Your task to perform on an android device: turn on priority inbox in the gmail app Image 0: 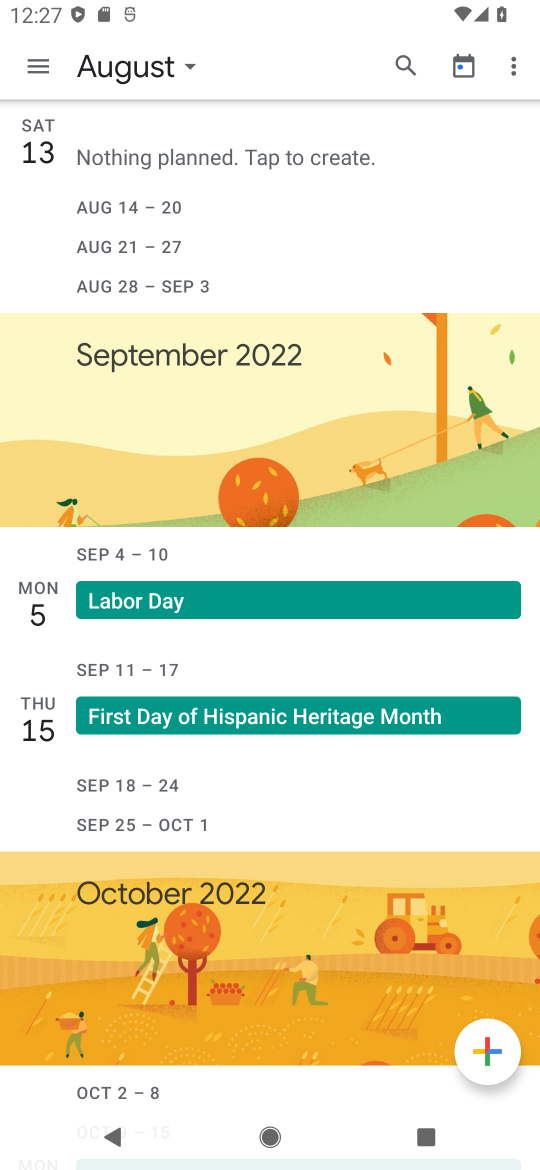
Step 0: press home button
Your task to perform on an android device: turn on priority inbox in the gmail app Image 1: 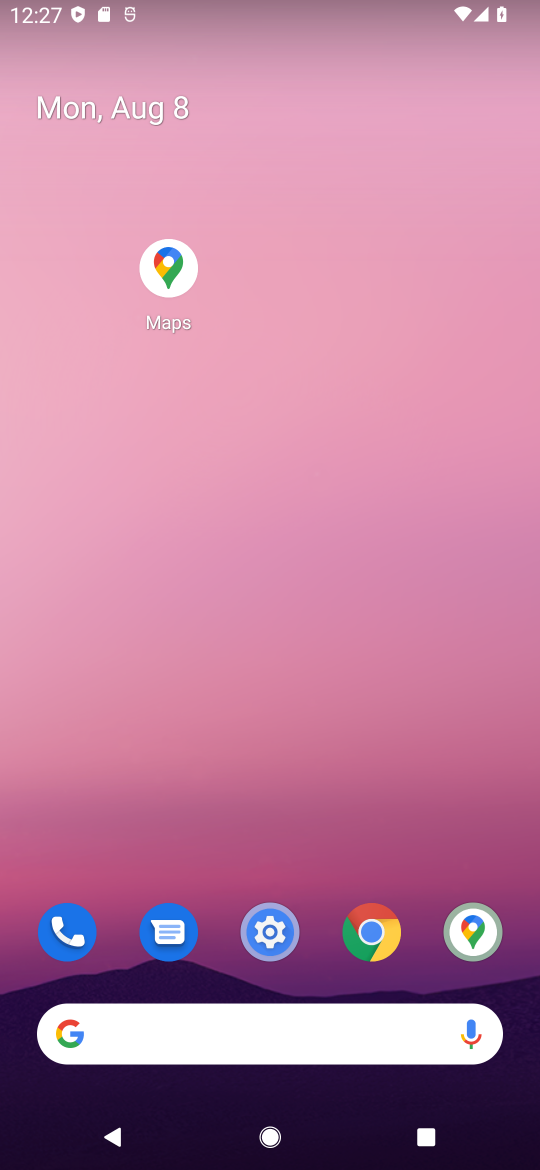
Step 1: drag from (221, 958) to (262, 146)
Your task to perform on an android device: turn on priority inbox in the gmail app Image 2: 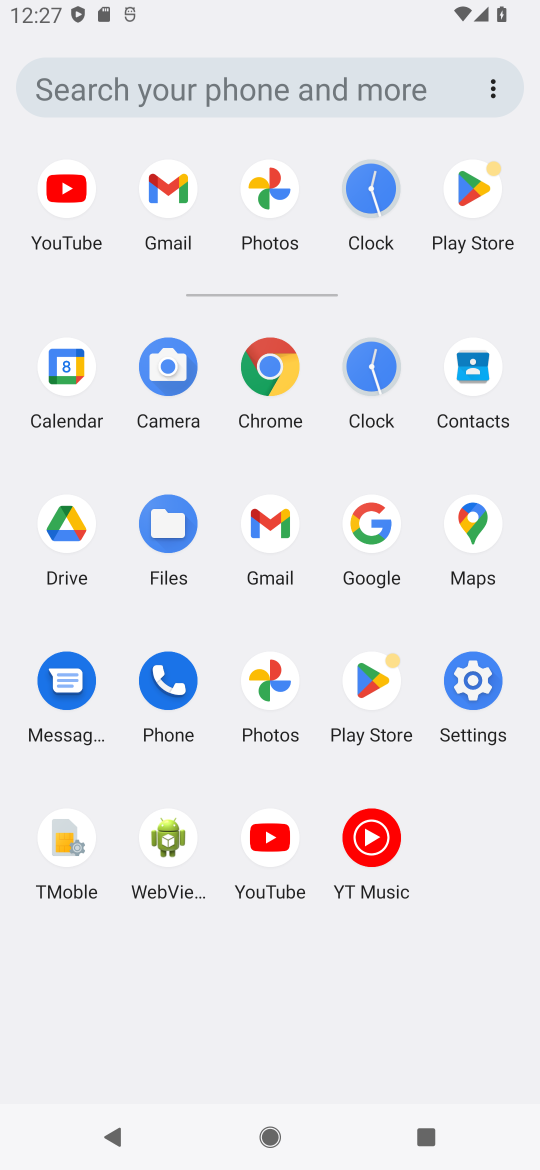
Step 2: click (176, 199)
Your task to perform on an android device: turn on priority inbox in the gmail app Image 3: 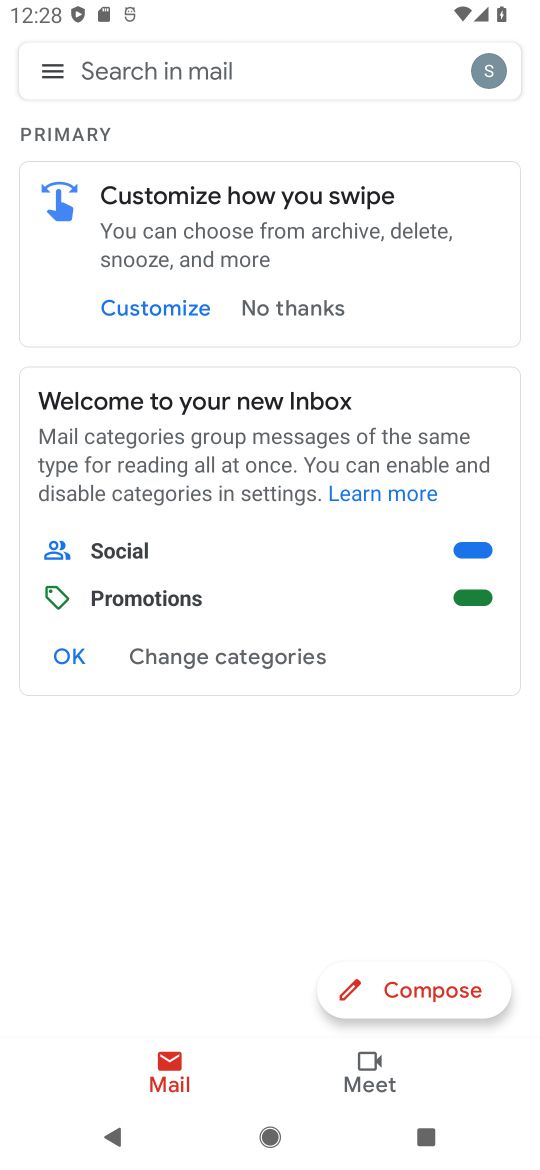
Step 3: click (62, 73)
Your task to perform on an android device: turn on priority inbox in the gmail app Image 4: 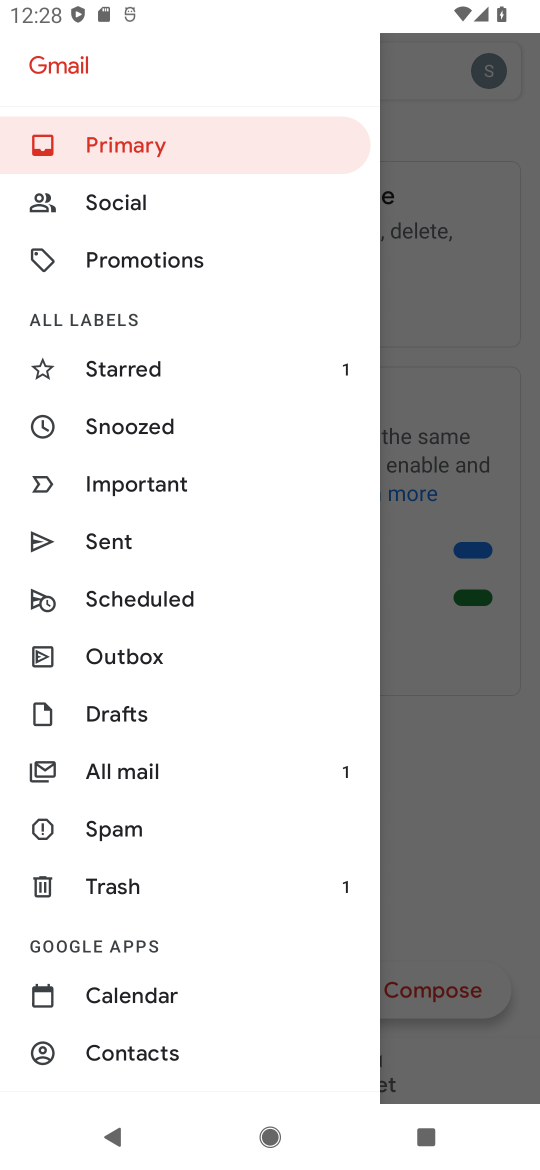
Step 4: drag from (192, 1037) to (183, 205)
Your task to perform on an android device: turn on priority inbox in the gmail app Image 5: 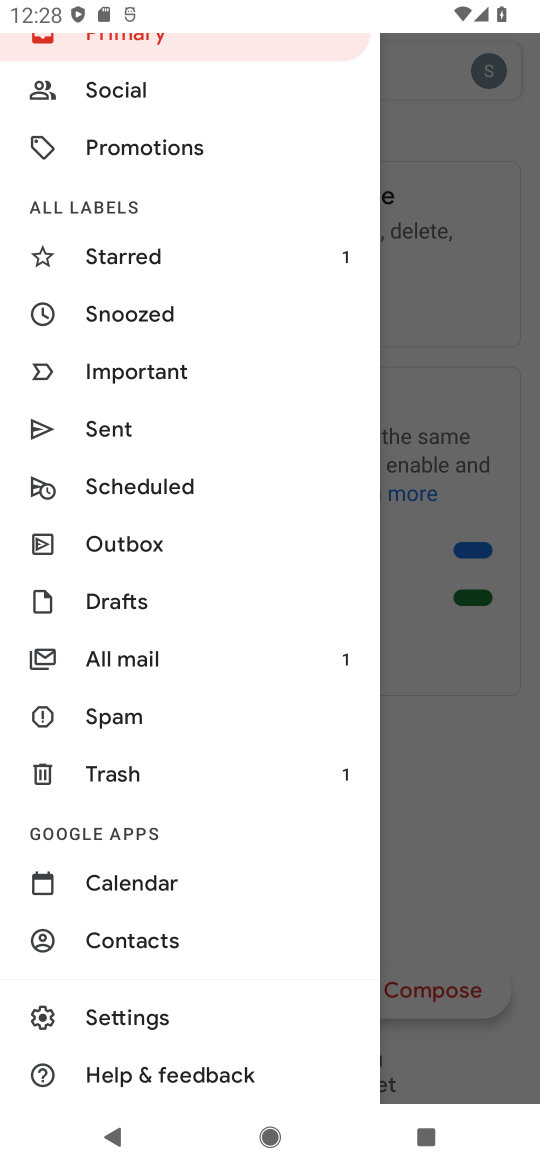
Step 5: click (187, 1029)
Your task to perform on an android device: turn on priority inbox in the gmail app Image 6: 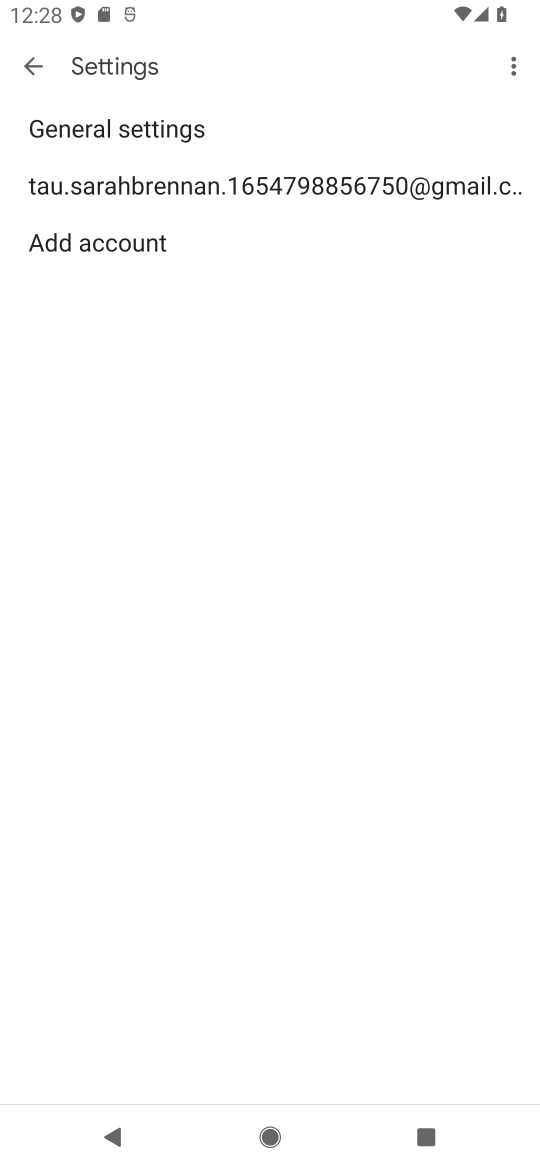
Step 6: click (358, 177)
Your task to perform on an android device: turn on priority inbox in the gmail app Image 7: 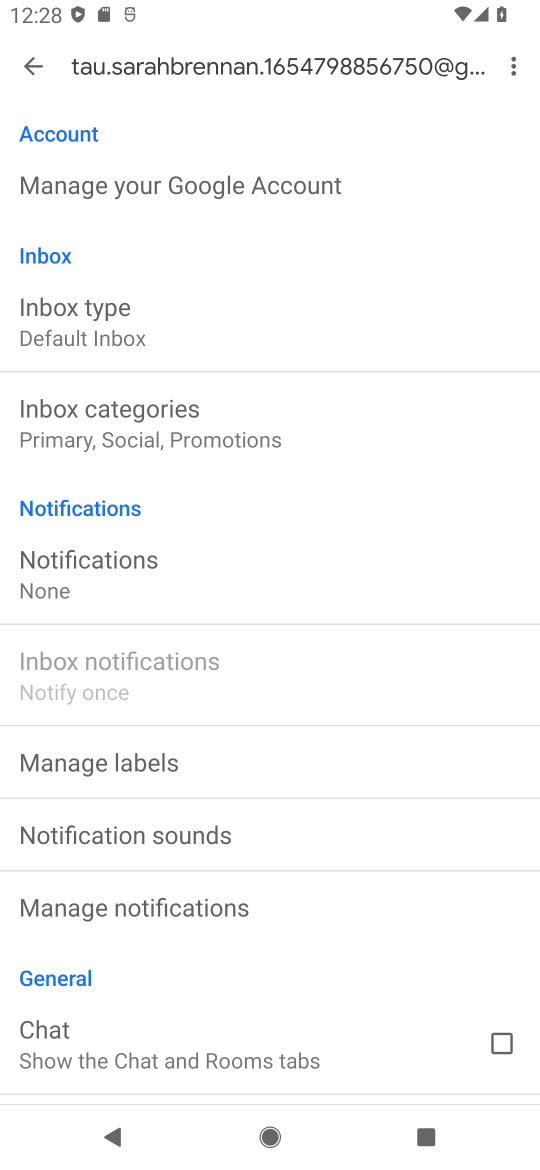
Step 7: drag from (210, 986) to (292, 373)
Your task to perform on an android device: turn on priority inbox in the gmail app Image 8: 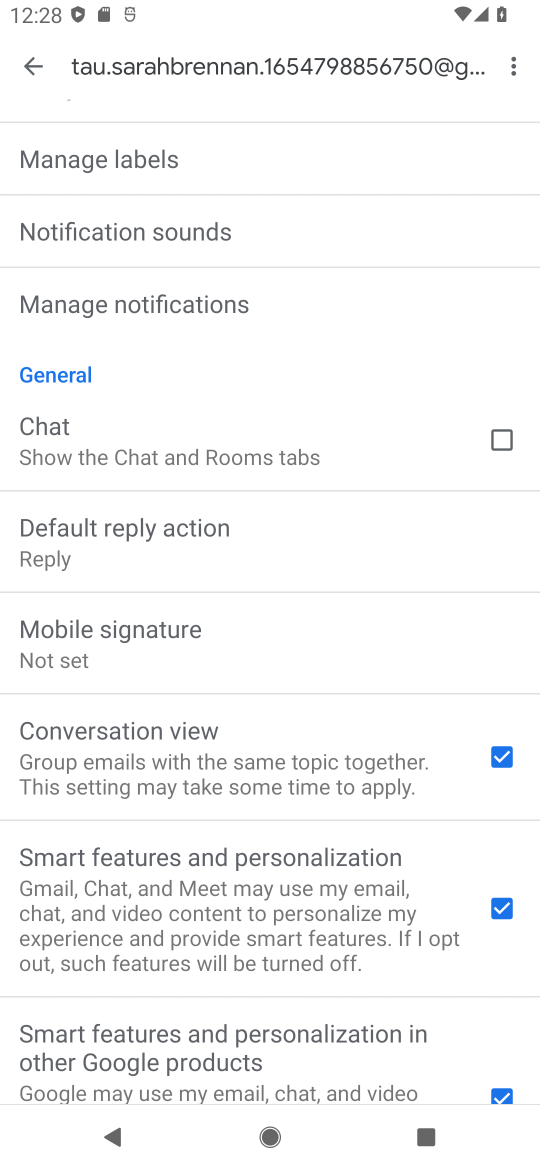
Step 8: drag from (218, 199) to (181, 1007)
Your task to perform on an android device: turn on priority inbox in the gmail app Image 9: 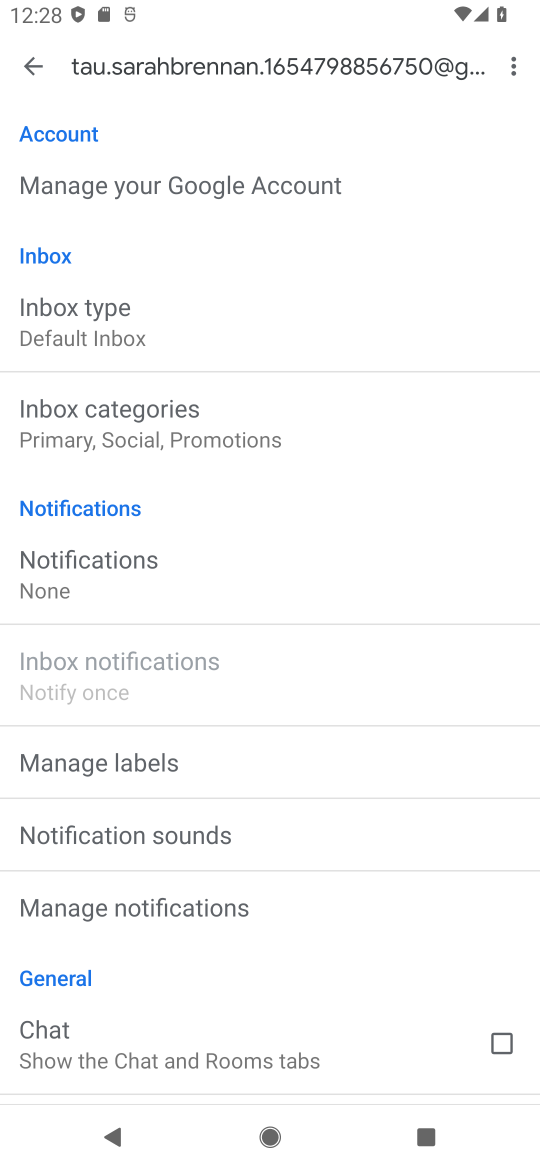
Step 9: click (149, 353)
Your task to perform on an android device: turn on priority inbox in the gmail app Image 10: 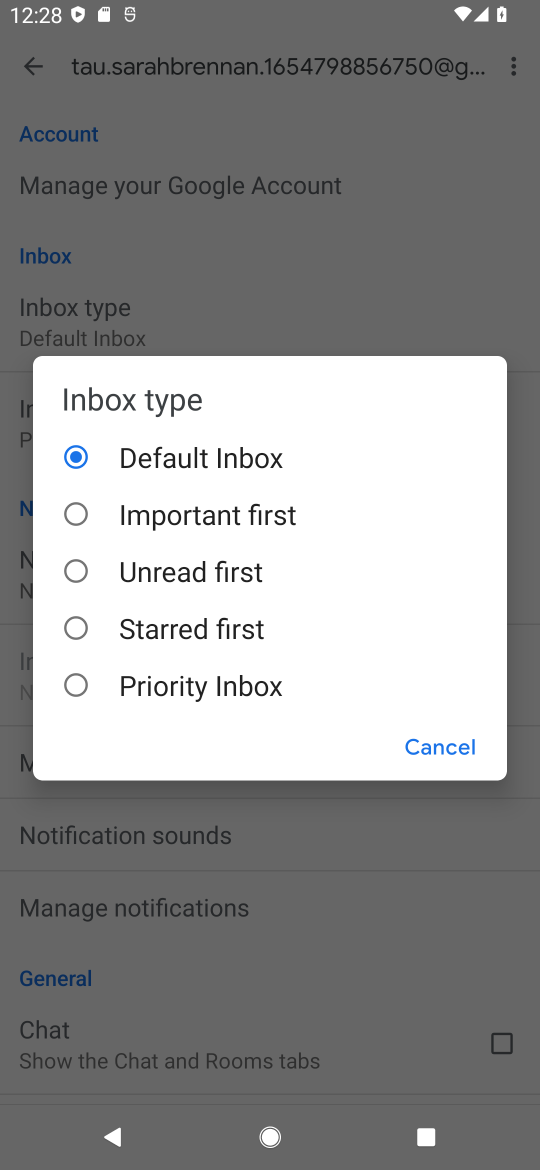
Step 10: click (150, 700)
Your task to perform on an android device: turn on priority inbox in the gmail app Image 11: 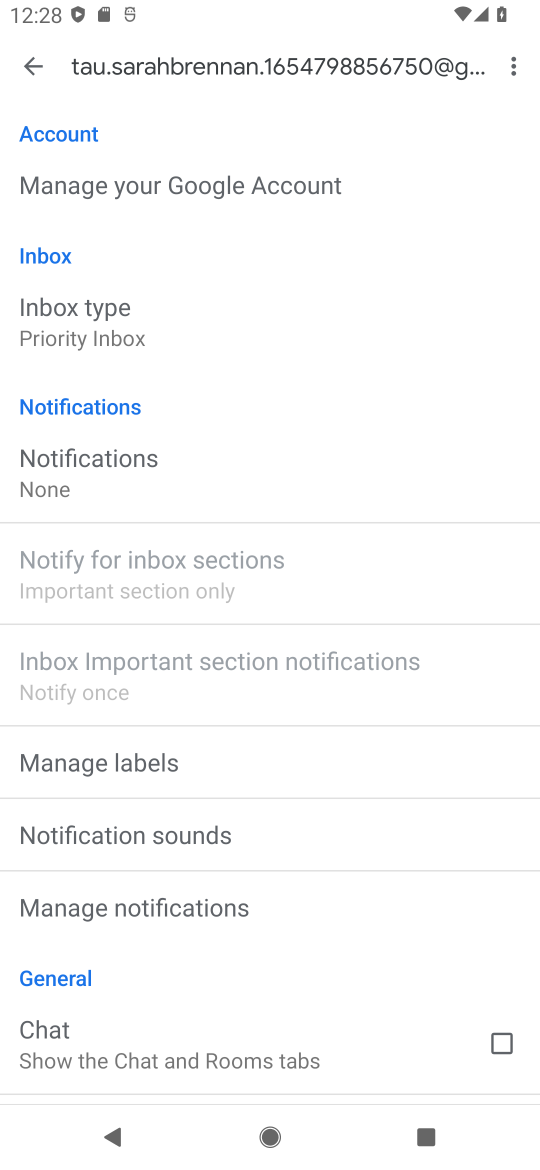
Step 11: task complete